Your task to perform on an android device: turn off translation in the chrome app Image 0: 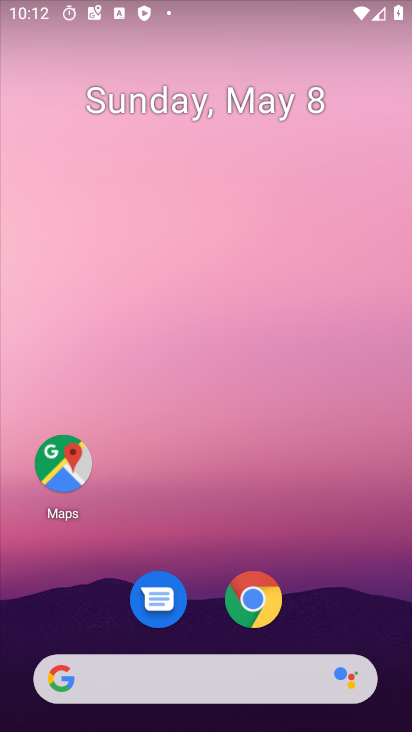
Step 0: click (233, 613)
Your task to perform on an android device: turn off translation in the chrome app Image 1: 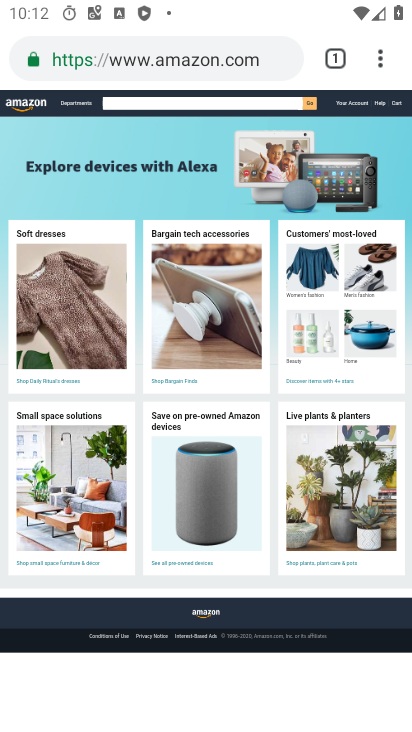
Step 1: task complete